Your task to perform on an android device: turn on bluetooth scan Image 0: 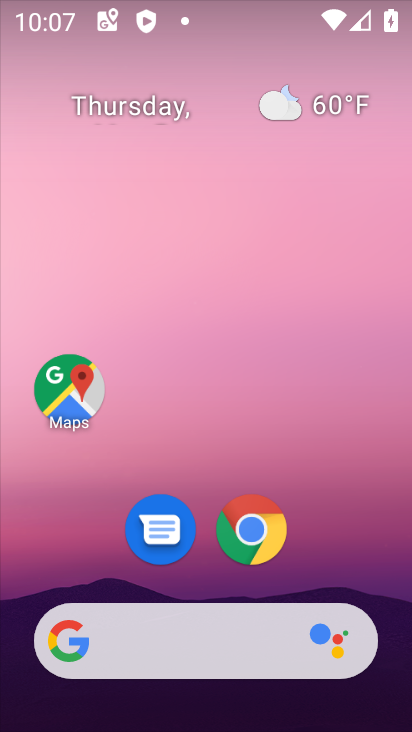
Step 0: drag from (358, 649) to (212, 99)
Your task to perform on an android device: turn on bluetooth scan Image 1: 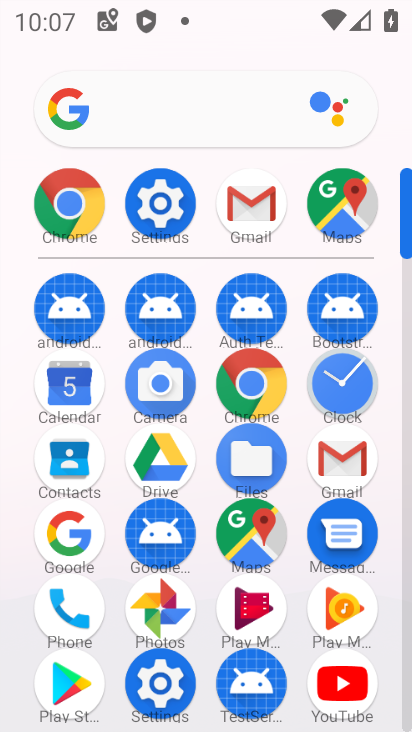
Step 1: click (160, 675)
Your task to perform on an android device: turn on bluetooth scan Image 2: 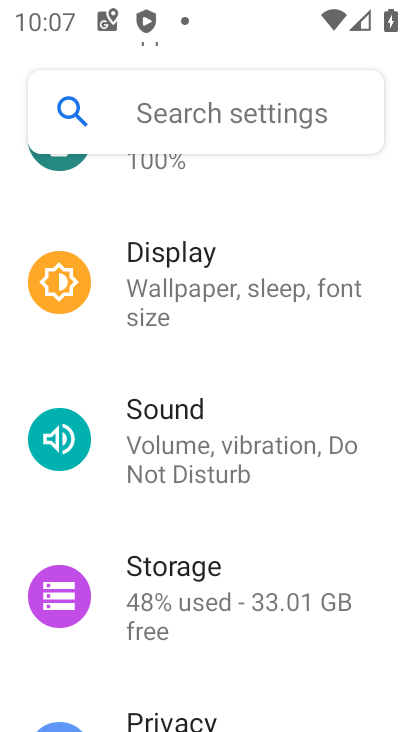
Step 2: drag from (268, 539) to (217, 227)
Your task to perform on an android device: turn on bluetooth scan Image 3: 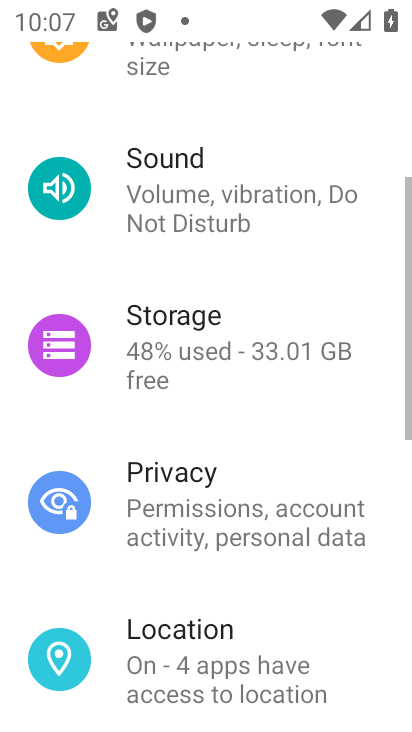
Step 3: drag from (170, 399) to (158, 95)
Your task to perform on an android device: turn on bluetooth scan Image 4: 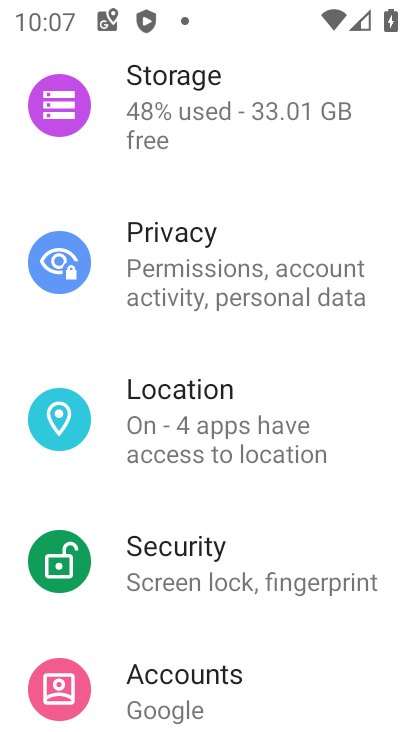
Step 4: drag from (234, 508) to (198, 102)
Your task to perform on an android device: turn on bluetooth scan Image 5: 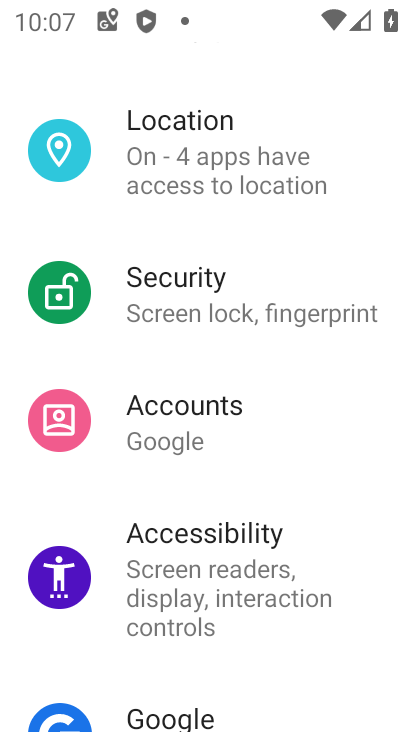
Step 5: drag from (217, 541) to (204, 221)
Your task to perform on an android device: turn on bluetooth scan Image 6: 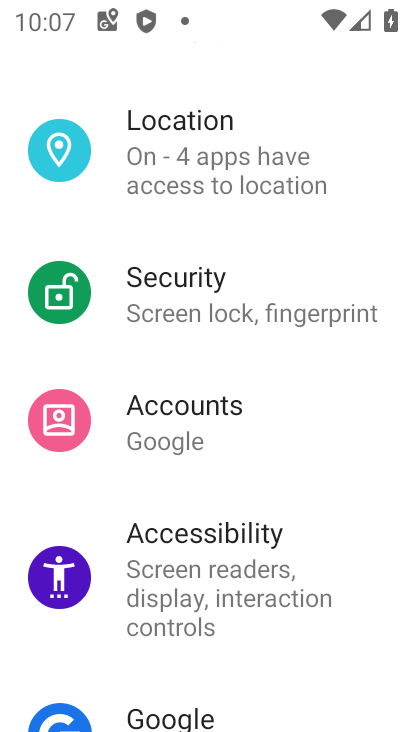
Step 6: drag from (247, 487) to (186, 113)
Your task to perform on an android device: turn on bluetooth scan Image 7: 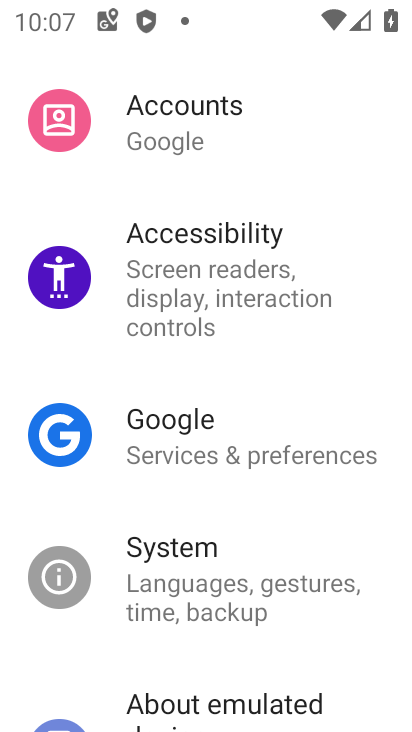
Step 7: drag from (211, 259) to (355, 703)
Your task to perform on an android device: turn on bluetooth scan Image 8: 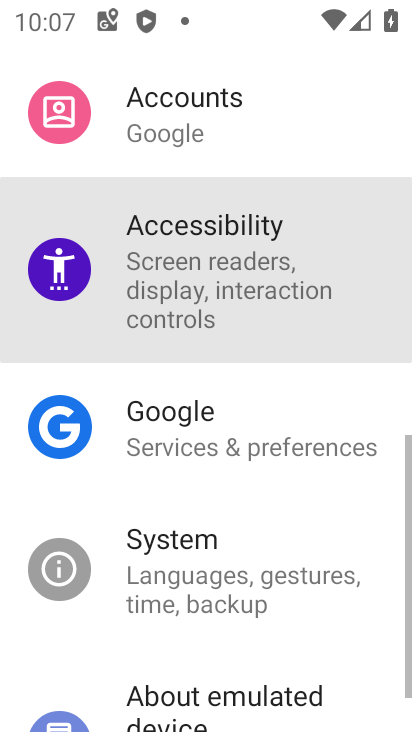
Step 8: drag from (187, 261) to (246, 649)
Your task to perform on an android device: turn on bluetooth scan Image 9: 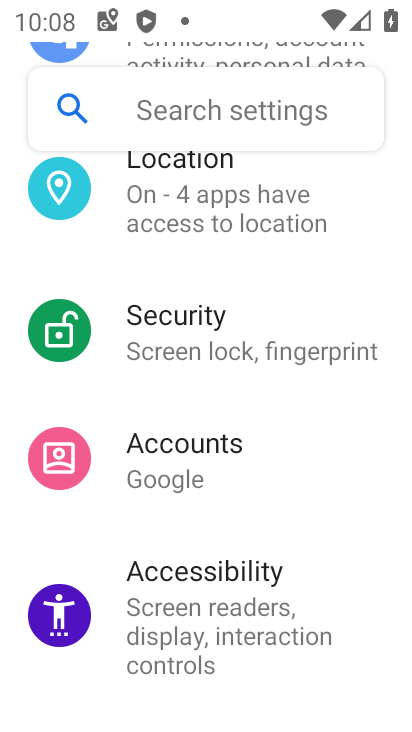
Step 9: drag from (187, 222) to (255, 622)
Your task to perform on an android device: turn on bluetooth scan Image 10: 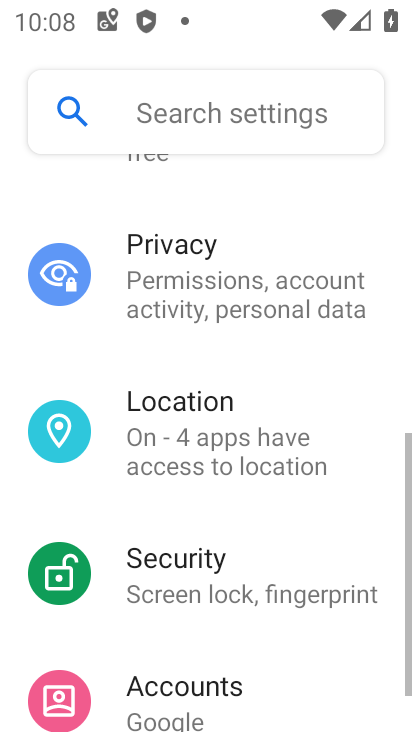
Step 10: drag from (234, 289) to (343, 669)
Your task to perform on an android device: turn on bluetooth scan Image 11: 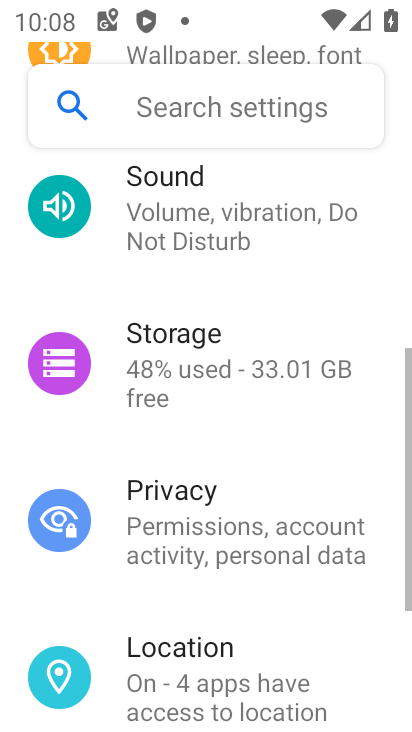
Step 11: drag from (278, 274) to (304, 590)
Your task to perform on an android device: turn on bluetooth scan Image 12: 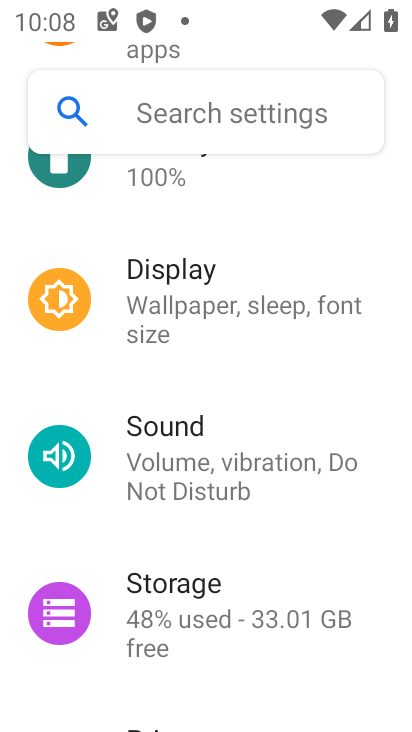
Step 12: drag from (187, 245) to (241, 566)
Your task to perform on an android device: turn on bluetooth scan Image 13: 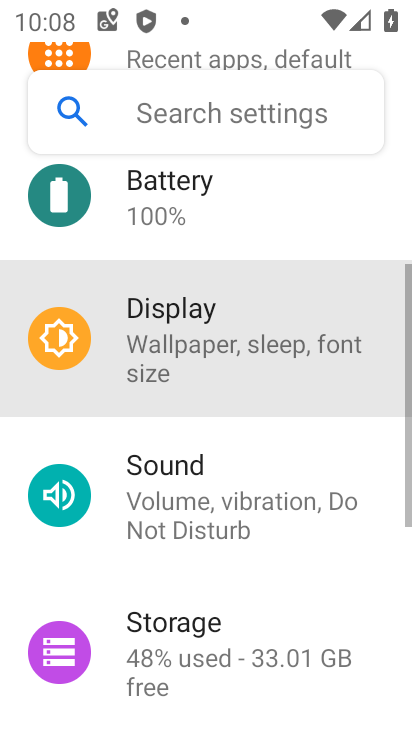
Step 13: drag from (234, 230) to (301, 570)
Your task to perform on an android device: turn on bluetooth scan Image 14: 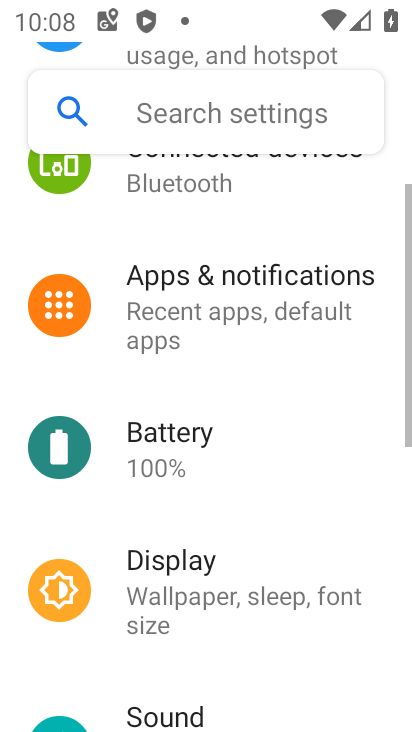
Step 14: drag from (270, 419) to (317, 659)
Your task to perform on an android device: turn on bluetooth scan Image 15: 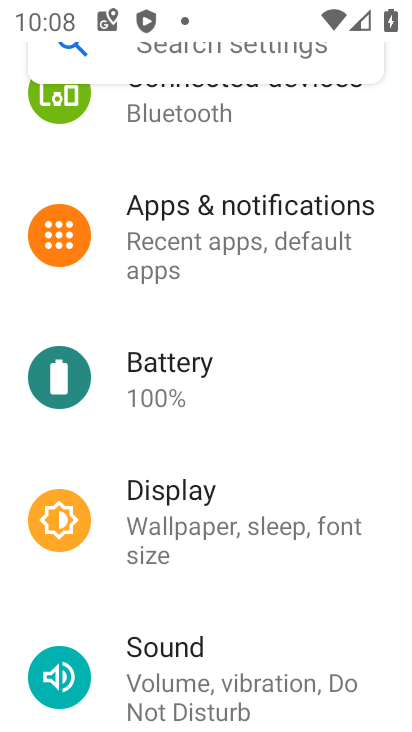
Step 15: click (224, 429)
Your task to perform on an android device: turn on bluetooth scan Image 16: 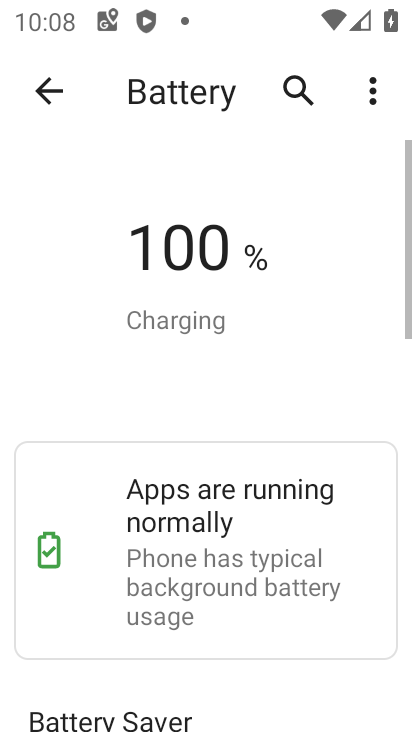
Step 16: click (33, 84)
Your task to perform on an android device: turn on bluetooth scan Image 17: 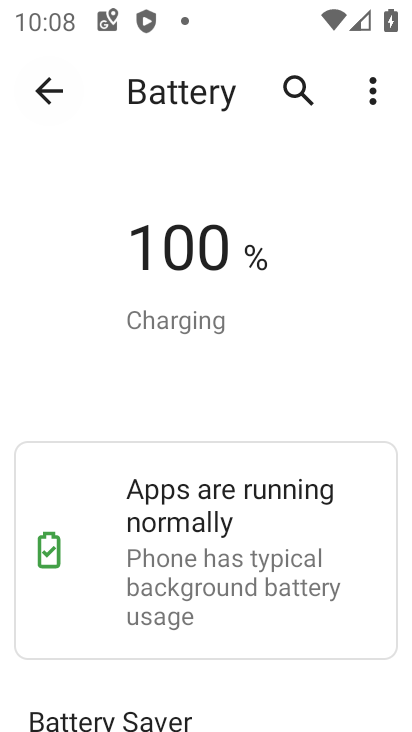
Step 17: click (34, 83)
Your task to perform on an android device: turn on bluetooth scan Image 18: 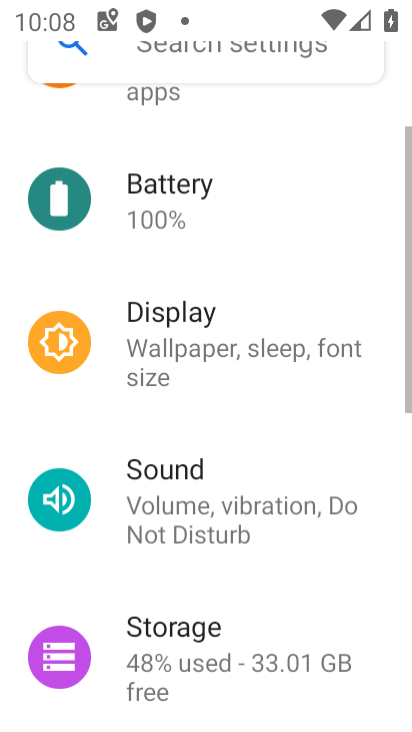
Step 18: click (37, 82)
Your task to perform on an android device: turn on bluetooth scan Image 19: 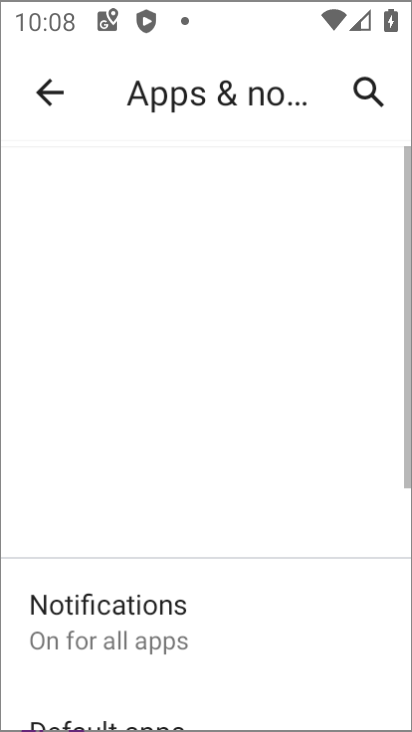
Step 19: drag from (186, 516) to (132, 167)
Your task to perform on an android device: turn on bluetooth scan Image 20: 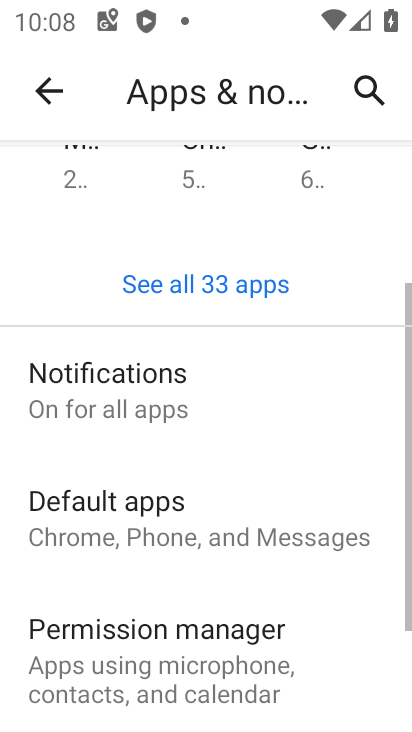
Step 20: click (53, 83)
Your task to perform on an android device: turn on bluetooth scan Image 21: 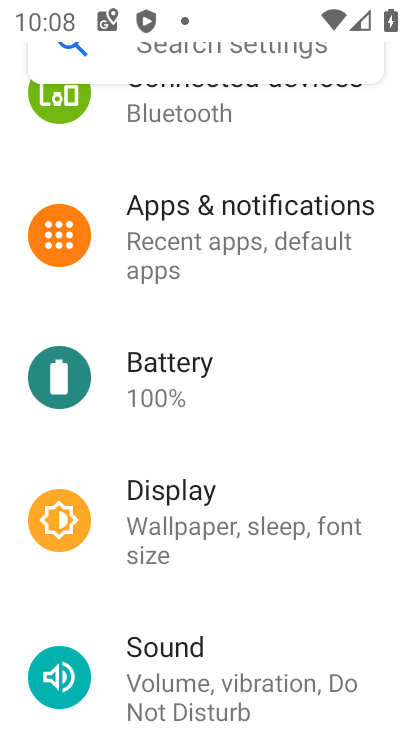
Step 21: click (254, 452)
Your task to perform on an android device: turn on bluetooth scan Image 22: 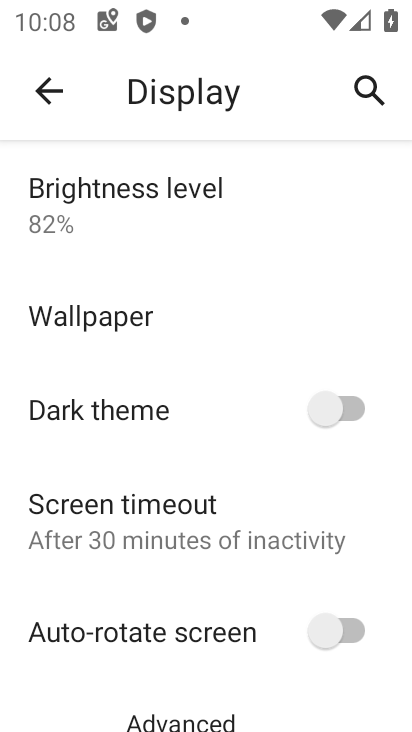
Step 22: click (42, 89)
Your task to perform on an android device: turn on bluetooth scan Image 23: 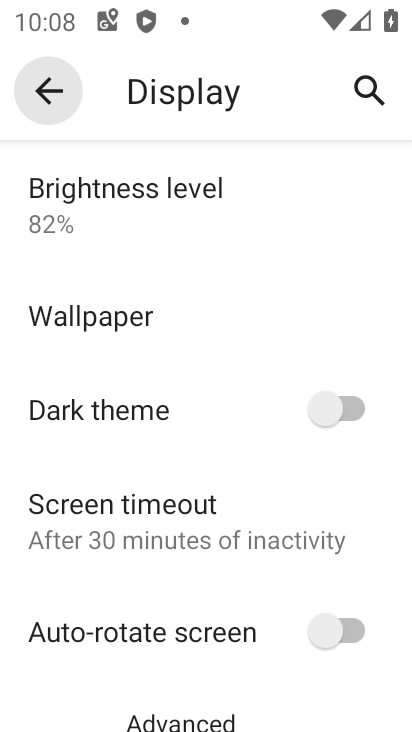
Step 23: click (42, 89)
Your task to perform on an android device: turn on bluetooth scan Image 24: 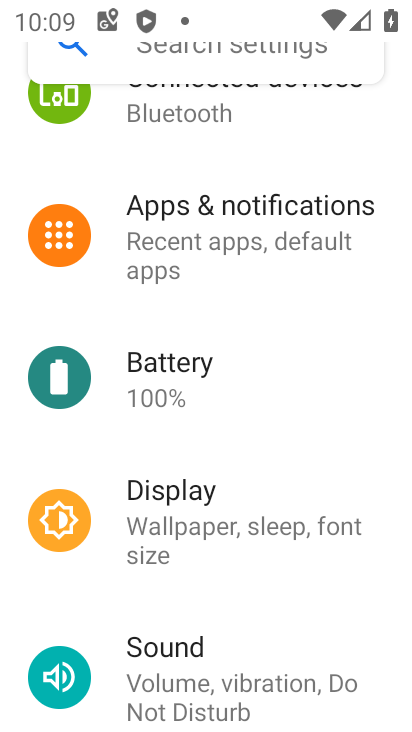
Step 24: click (185, 95)
Your task to perform on an android device: turn on bluetooth scan Image 25: 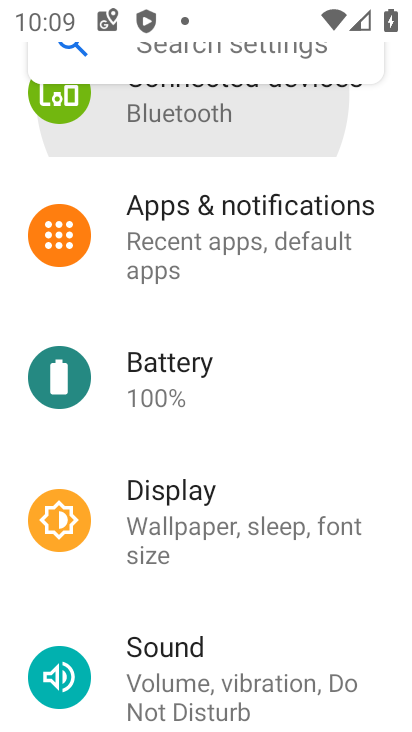
Step 25: click (187, 103)
Your task to perform on an android device: turn on bluetooth scan Image 26: 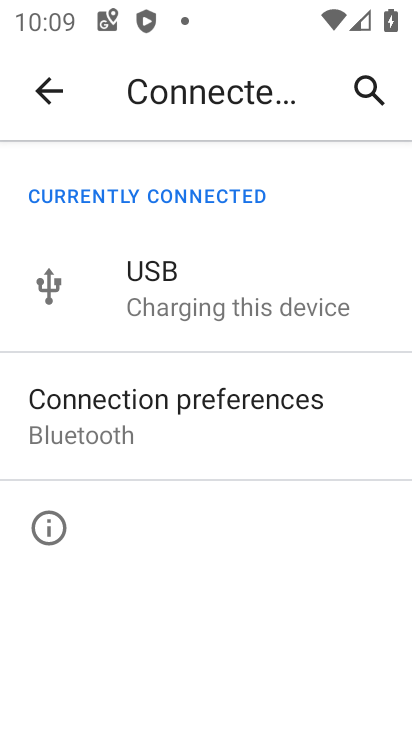
Step 26: click (44, 98)
Your task to perform on an android device: turn on bluetooth scan Image 27: 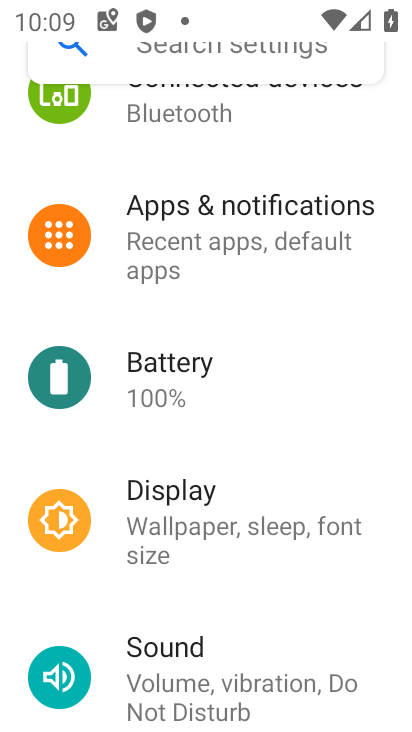
Step 27: drag from (309, 407) to (219, 82)
Your task to perform on an android device: turn on bluetooth scan Image 28: 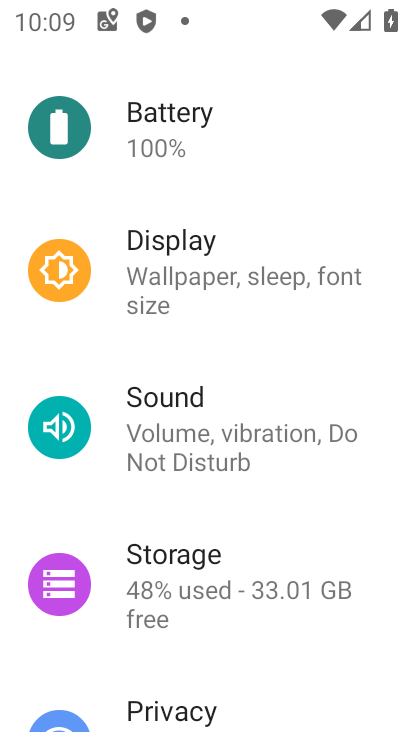
Step 28: drag from (259, 550) to (215, 115)
Your task to perform on an android device: turn on bluetooth scan Image 29: 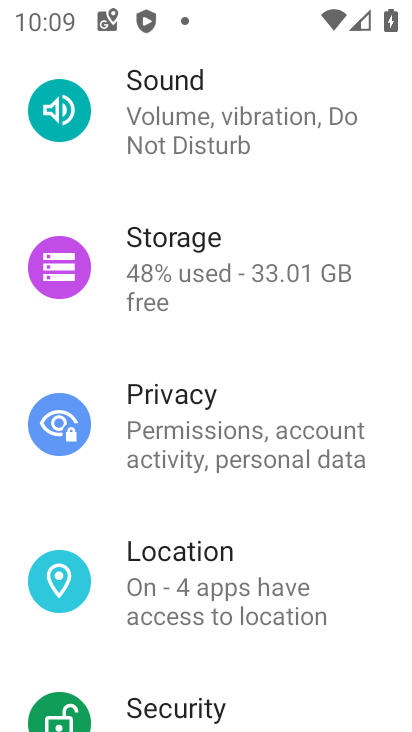
Step 29: drag from (219, 198) to (347, 520)
Your task to perform on an android device: turn on bluetooth scan Image 30: 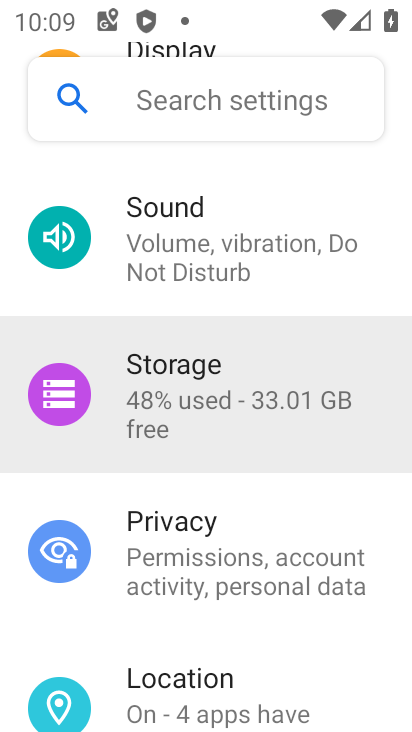
Step 30: drag from (242, 271) to (277, 632)
Your task to perform on an android device: turn on bluetooth scan Image 31: 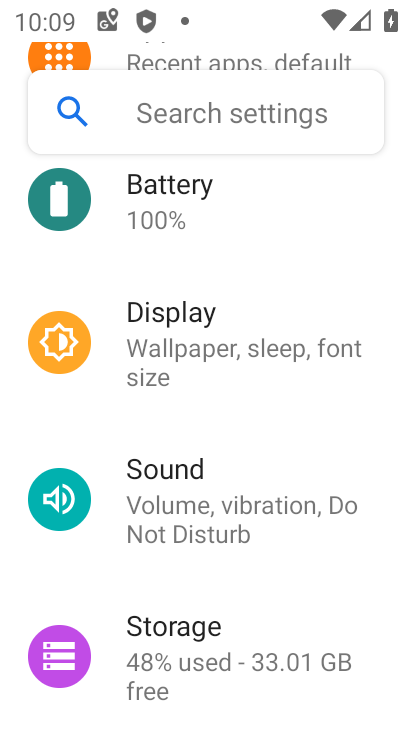
Step 31: drag from (283, 611) to (283, 658)
Your task to perform on an android device: turn on bluetooth scan Image 32: 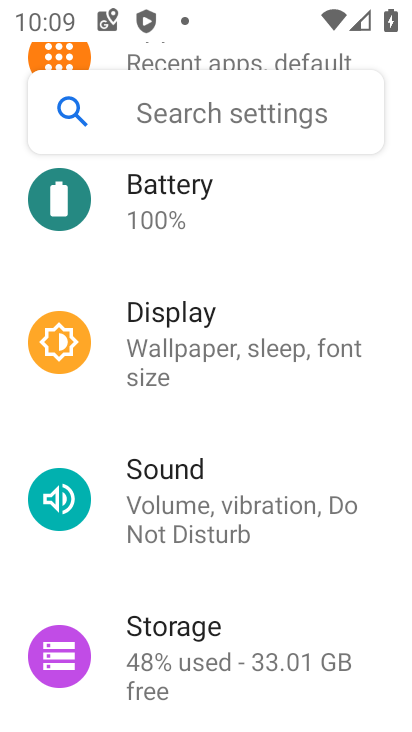
Step 32: drag from (167, 325) to (283, 598)
Your task to perform on an android device: turn on bluetooth scan Image 33: 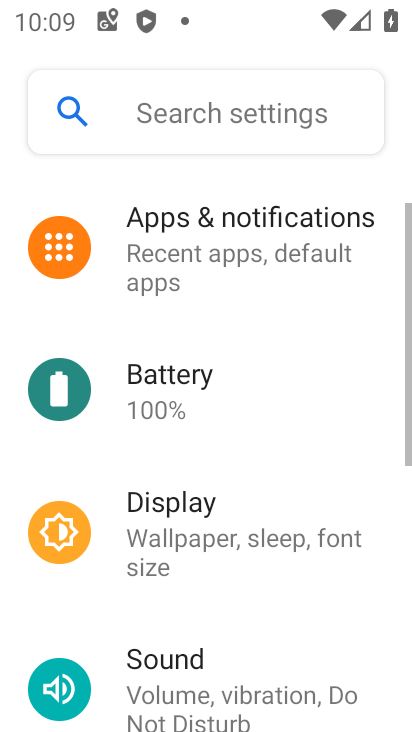
Step 33: drag from (124, 225) to (221, 566)
Your task to perform on an android device: turn on bluetooth scan Image 34: 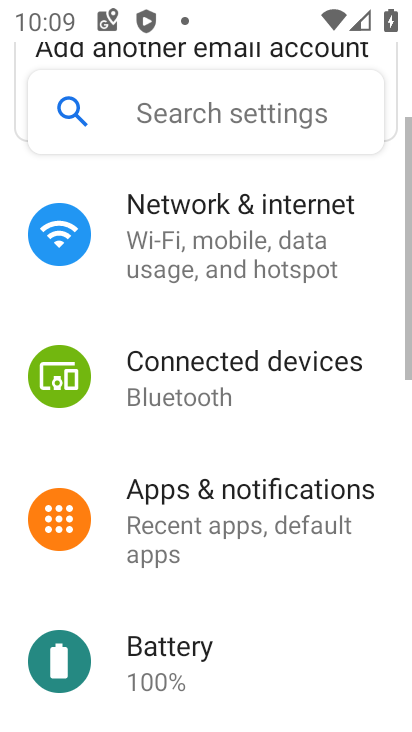
Step 34: drag from (199, 273) to (299, 688)
Your task to perform on an android device: turn on bluetooth scan Image 35: 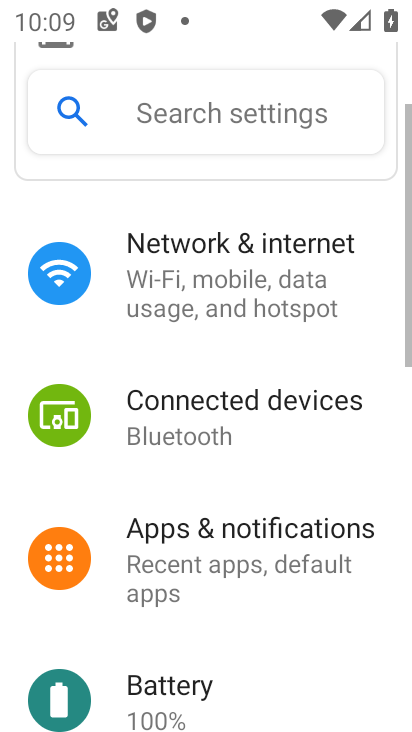
Step 35: drag from (209, 397) to (273, 559)
Your task to perform on an android device: turn on bluetooth scan Image 36: 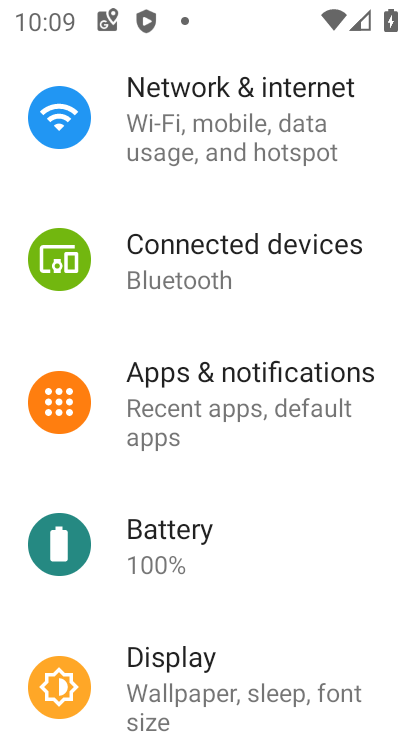
Step 36: click (183, 274)
Your task to perform on an android device: turn on bluetooth scan Image 37: 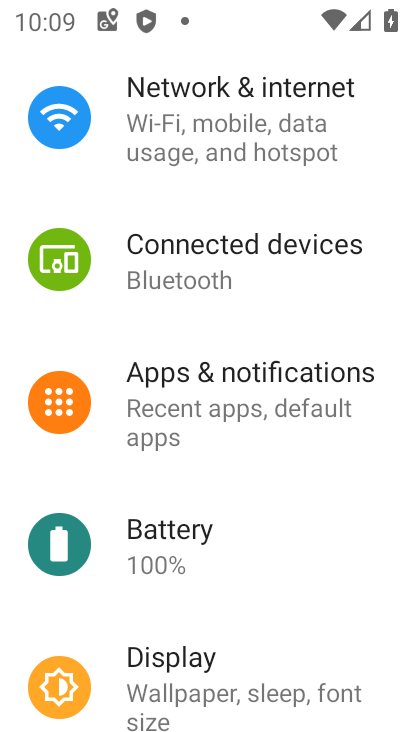
Step 37: click (183, 273)
Your task to perform on an android device: turn on bluetooth scan Image 38: 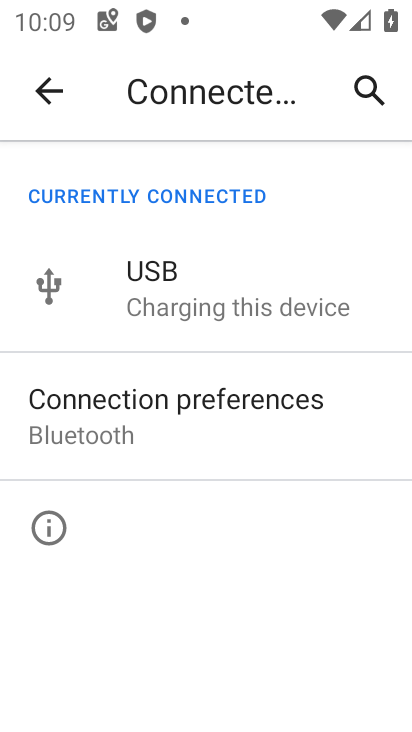
Step 38: click (37, 104)
Your task to perform on an android device: turn on bluetooth scan Image 39: 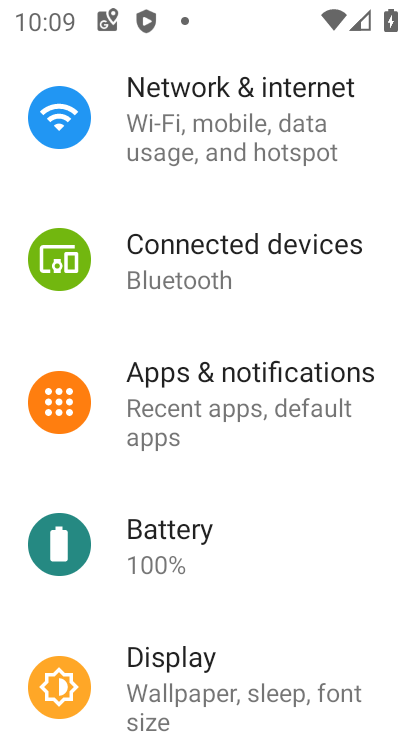
Step 39: drag from (208, 622) to (151, 277)
Your task to perform on an android device: turn on bluetooth scan Image 40: 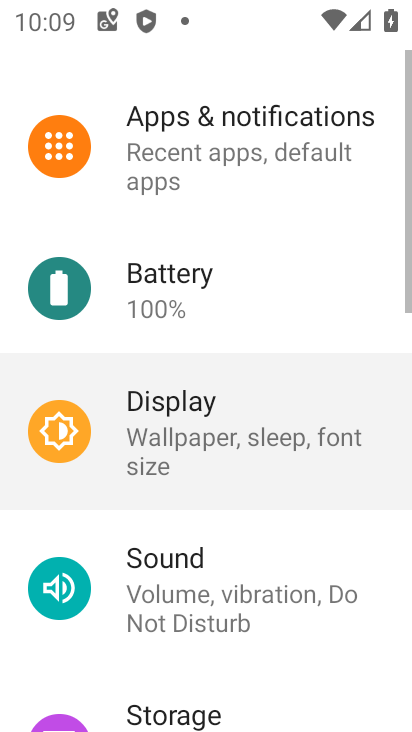
Step 40: drag from (182, 522) to (176, 153)
Your task to perform on an android device: turn on bluetooth scan Image 41: 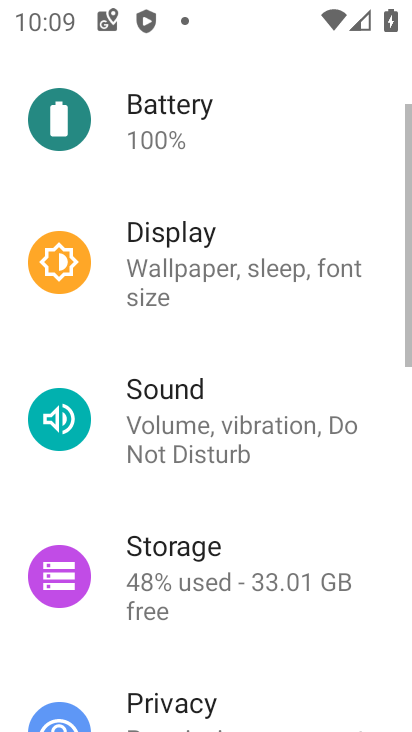
Step 41: drag from (217, 526) to (152, 57)
Your task to perform on an android device: turn on bluetooth scan Image 42: 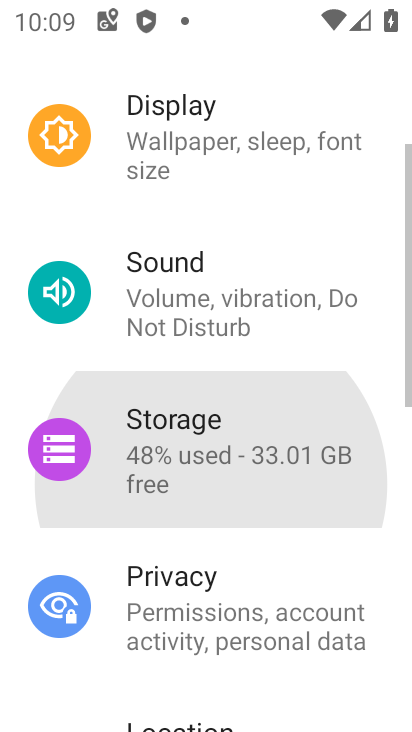
Step 42: drag from (230, 601) to (213, 157)
Your task to perform on an android device: turn on bluetooth scan Image 43: 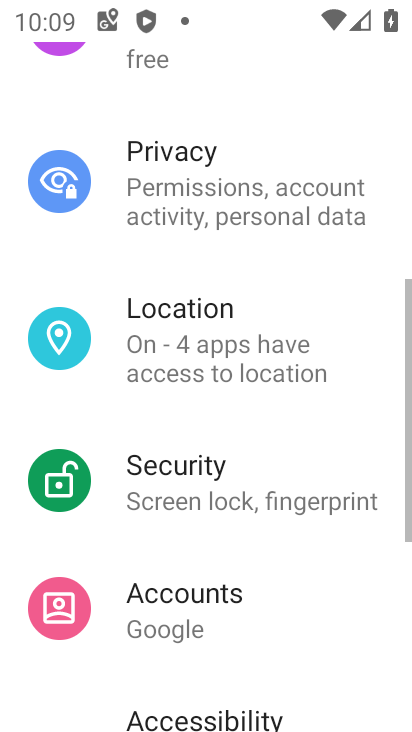
Step 43: drag from (276, 539) to (249, 23)
Your task to perform on an android device: turn on bluetooth scan Image 44: 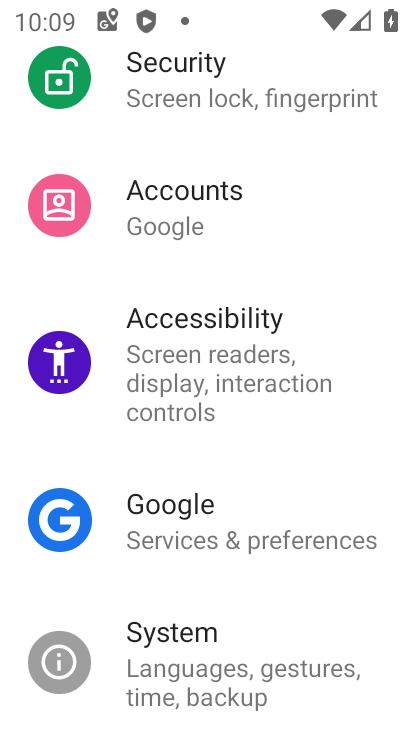
Step 44: drag from (179, 220) to (258, 651)
Your task to perform on an android device: turn on bluetooth scan Image 45: 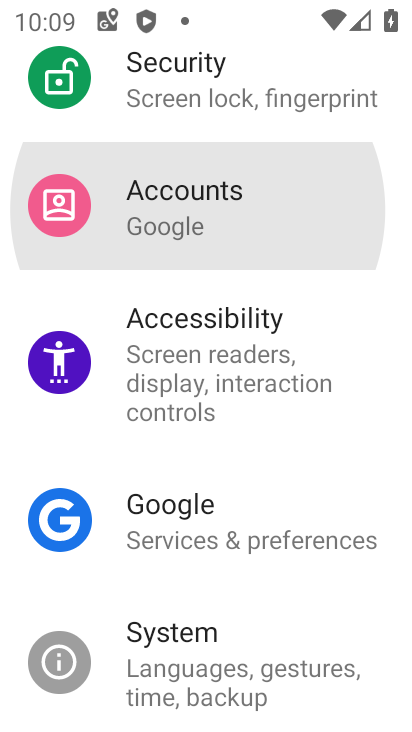
Step 45: drag from (173, 230) to (199, 545)
Your task to perform on an android device: turn on bluetooth scan Image 46: 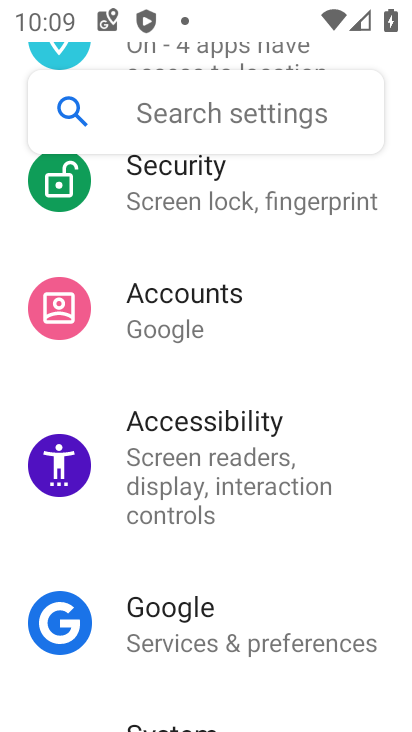
Step 46: drag from (215, 317) to (278, 490)
Your task to perform on an android device: turn on bluetooth scan Image 47: 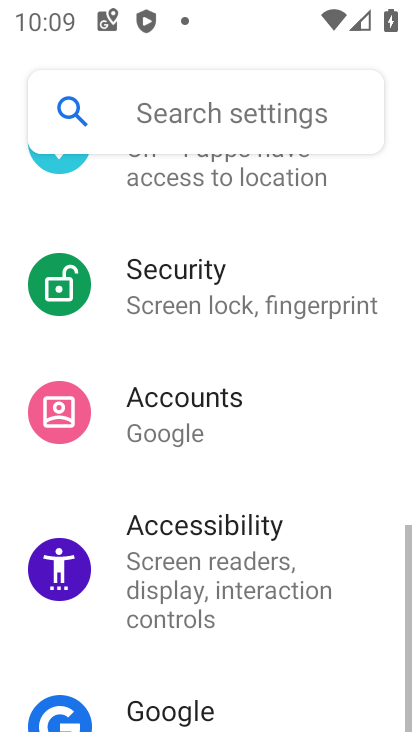
Step 47: drag from (228, 175) to (262, 532)
Your task to perform on an android device: turn on bluetooth scan Image 48: 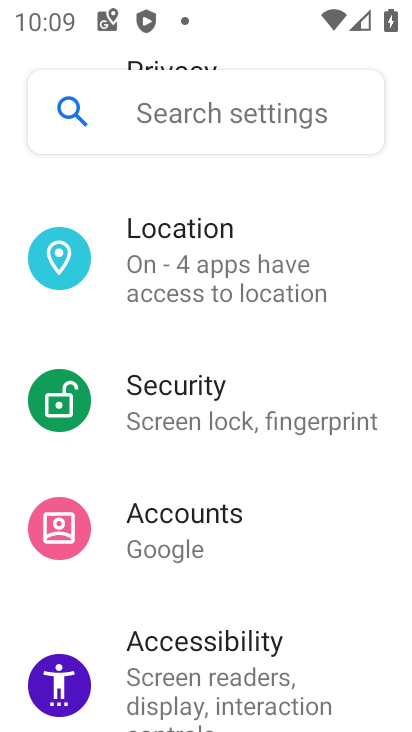
Step 48: click (210, 275)
Your task to perform on an android device: turn on bluetooth scan Image 49: 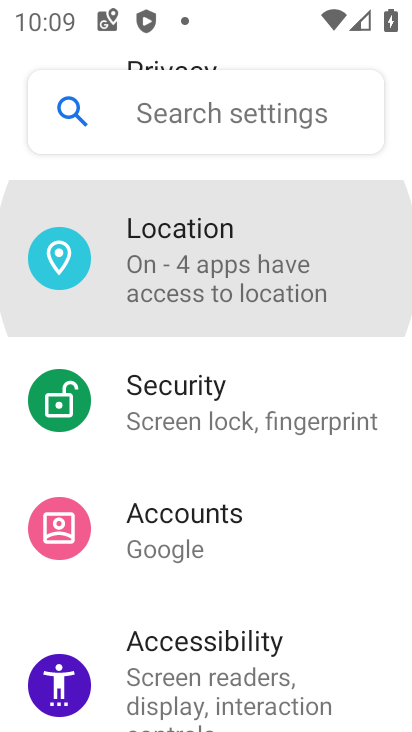
Step 49: click (211, 276)
Your task to perform on an android device: turn on bluetooth scan Image 50: 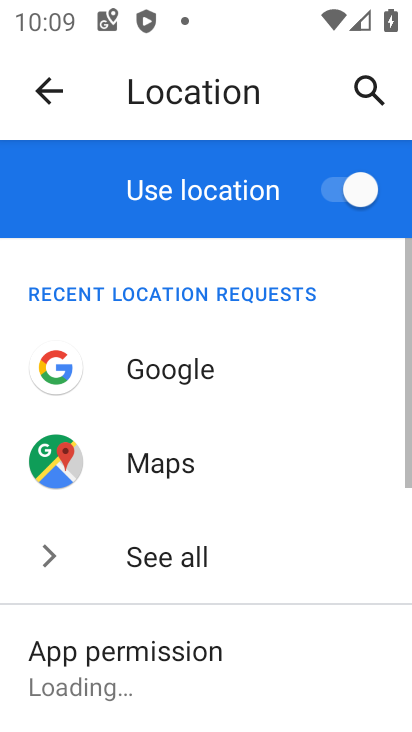
Step 50: drag from (211, 586) to (152, 177)
Your task to perform on an android device: turn on bluetooth scan Image 51: 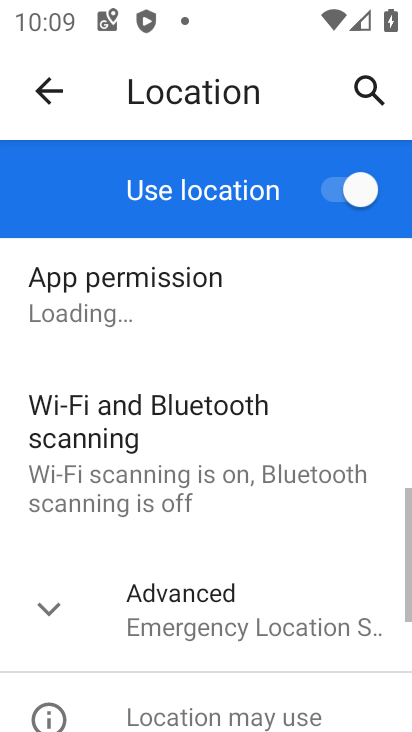
Step 51: drag from (173, 424) to (144, 149)
Your task to perform on an android device: turn on bluetooth scan Image 52: 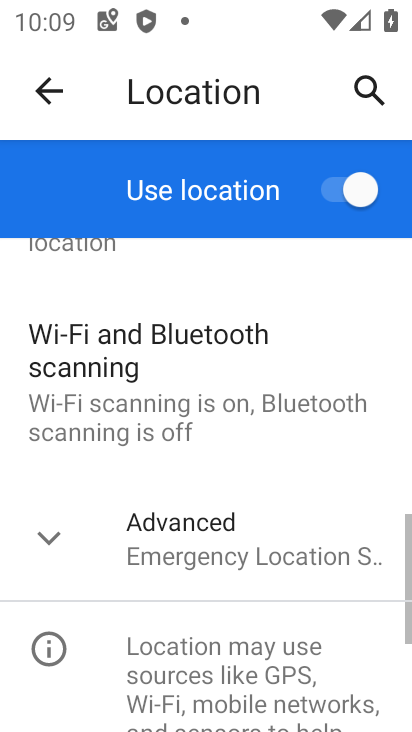
Step 52: click (129, 368)
Your task to perform on an android device: turn on bluetooth scan Image 53: 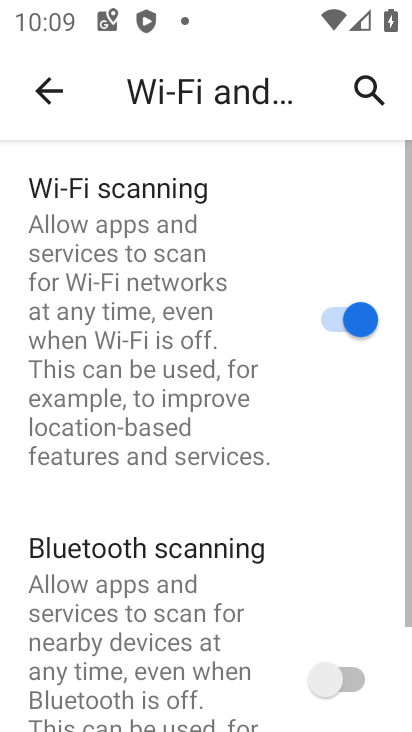
Step 53: drag from (259, 507) to (249, 220)
Your task to perform on an android device: turn on bluetooth scan Image 54: 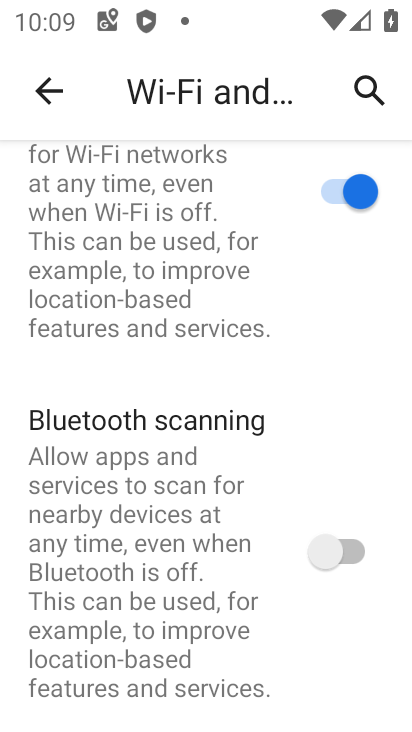
Step 54: click (323, 558)
Your task to perform on an android device: turn on bluetooth scan Image 55: 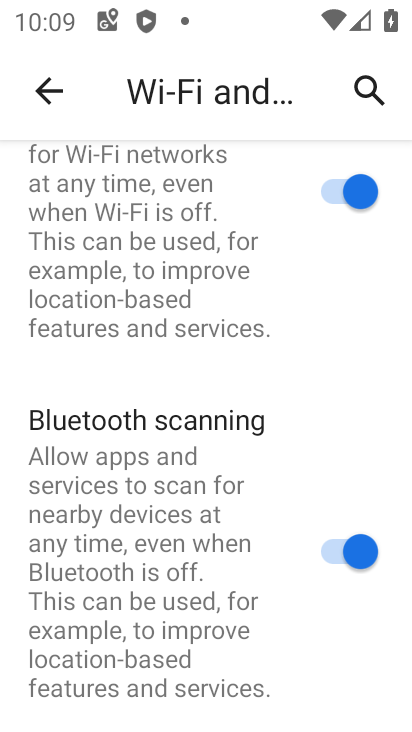
Step 55: task complete